Your task to perform on an android device: toggle translation in the chrome app Image 0: 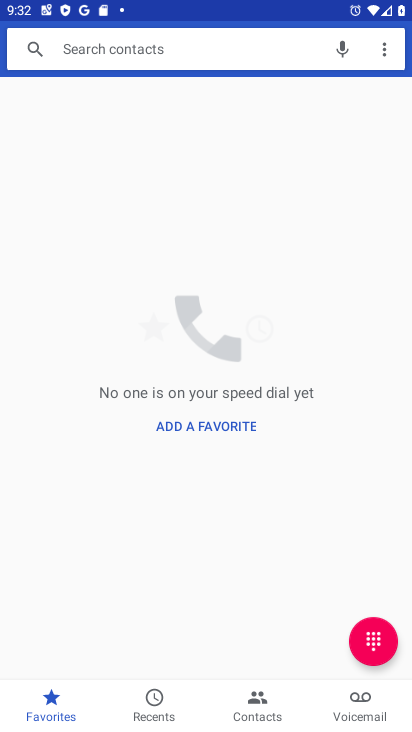
Step 0: press home button
Your task to perform on an android device: toggle translation in the chrome app Image 1: 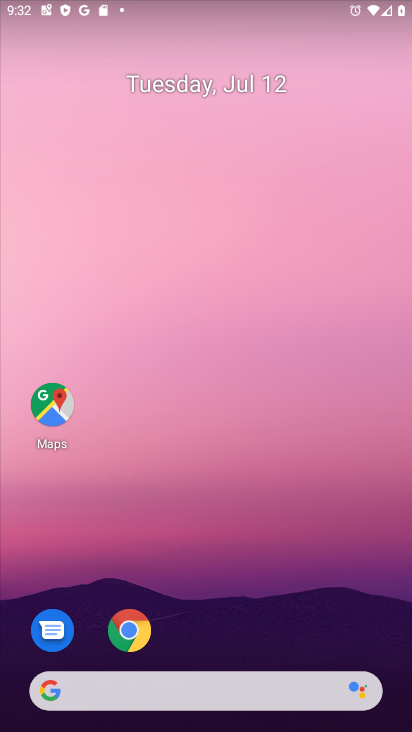
Step 1: click (129, 628)
Your task to perform on an android device: toggle translation in the chrome app Image 2: 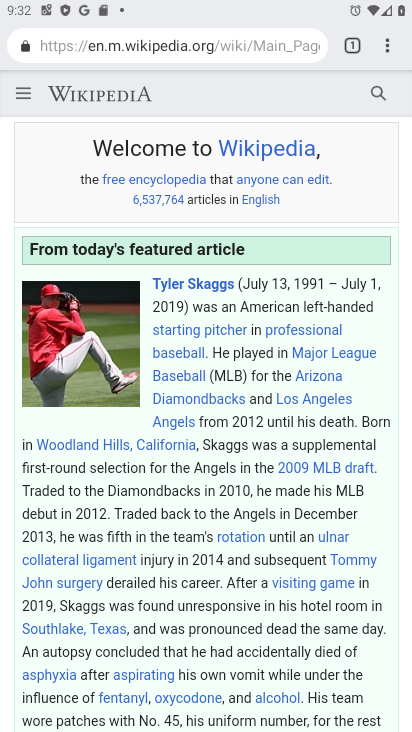
Step 2: click (381, 44)
Your task to perform on an android device: toggle translation in the chrome app Image 3: 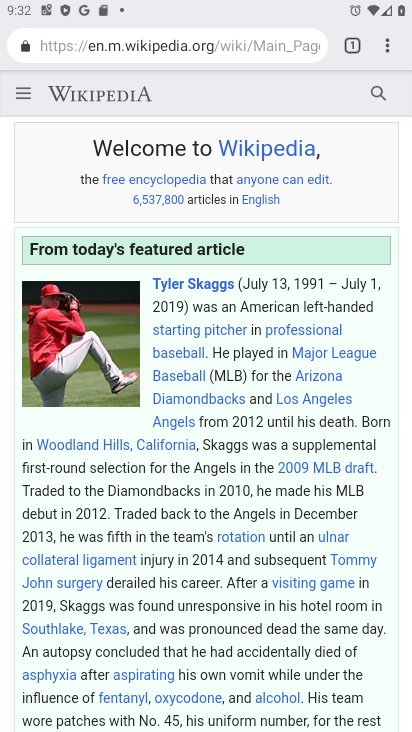
Step 3: click (386, 41)
Your task to perform on an android device: toggle translation in the chrome app Image 4: 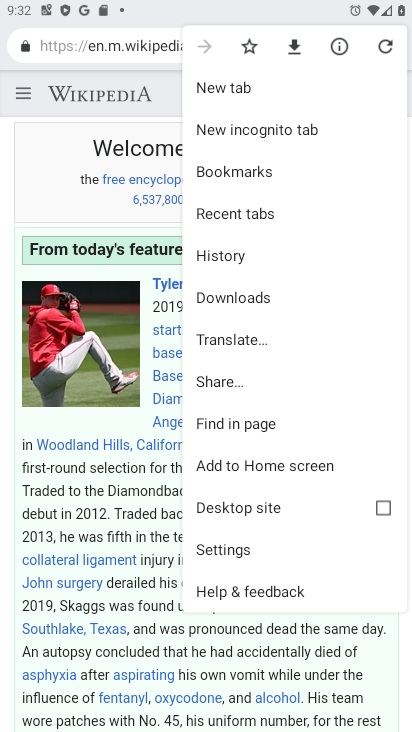
Step 4: click (228, 547)
Your task to perform on an android device: toggle translation in the chrome app Image 5: 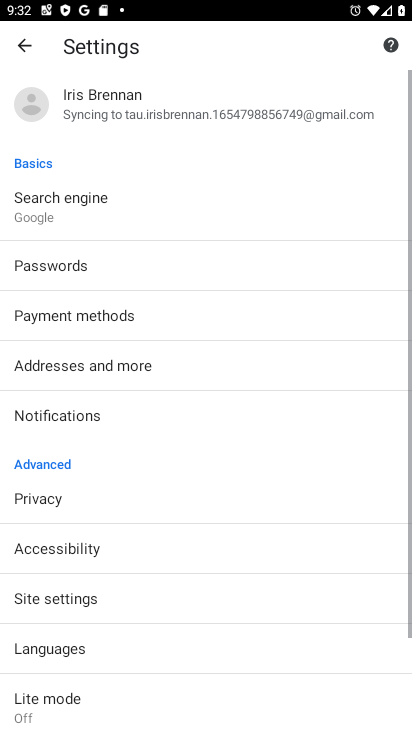
Step 5: click (65, 648)
Your task to perform on an android device: toggle translation in the chrome app Image 6: 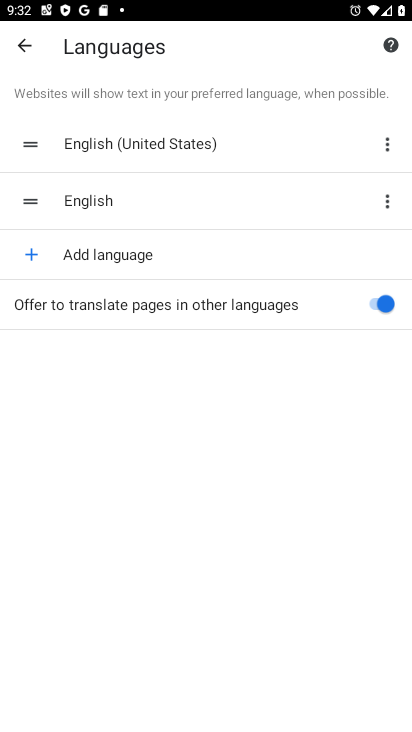
Step 6: click (376, 301)
Your task to perform on an android device: toggle translation in the chrome app Image 7: 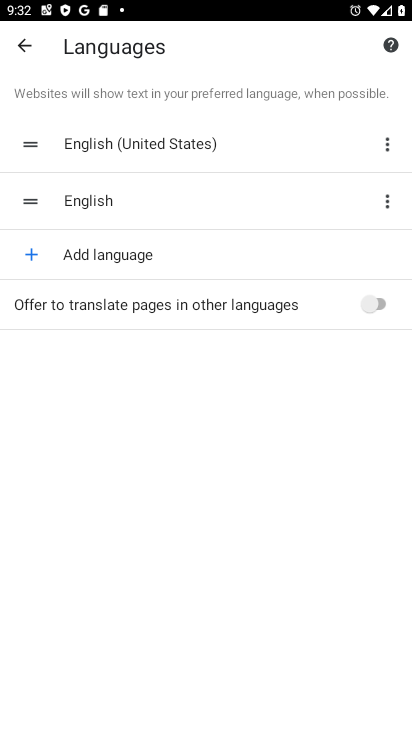
Step 7: task complete